Your task to perform on an android device: remove spam from my inbox in the gmail app Image 0: 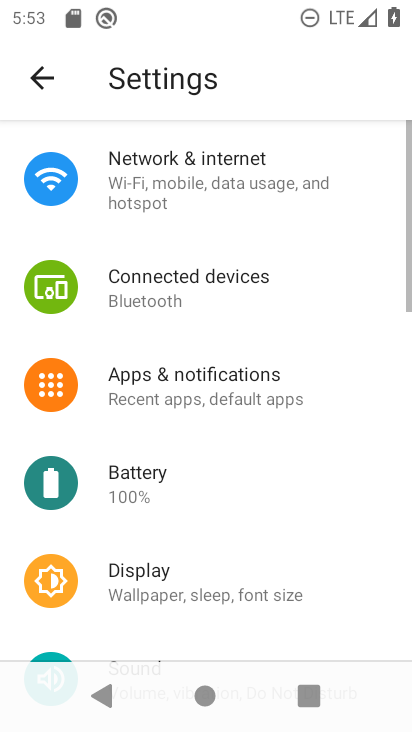
Step 0: press home button
Your task to perform on an android device: remove spam from my inbox in the gmail app Image 1: 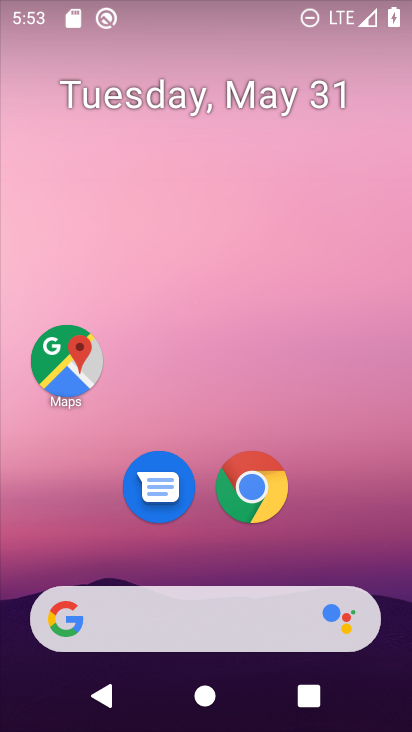
Step 1: drag from (349, 503) to (207, 30)
Your task to perform on an android device: remove spam from my inbox in the gmail app Image 2: 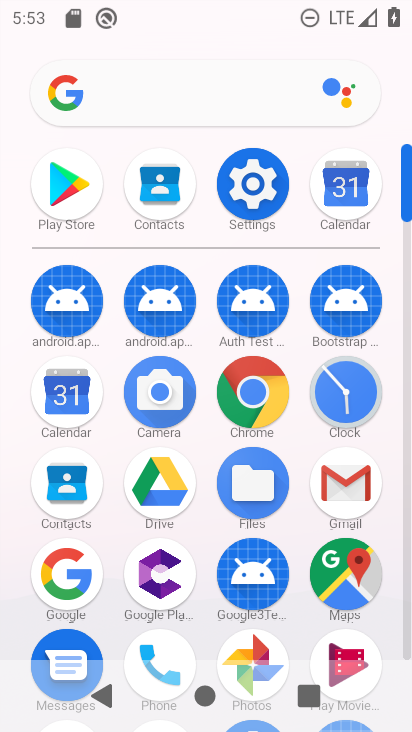
Step 2: click (350, 480)
Your task to perform on an android device: remove spam from my inbox in the gmail app Image 3: 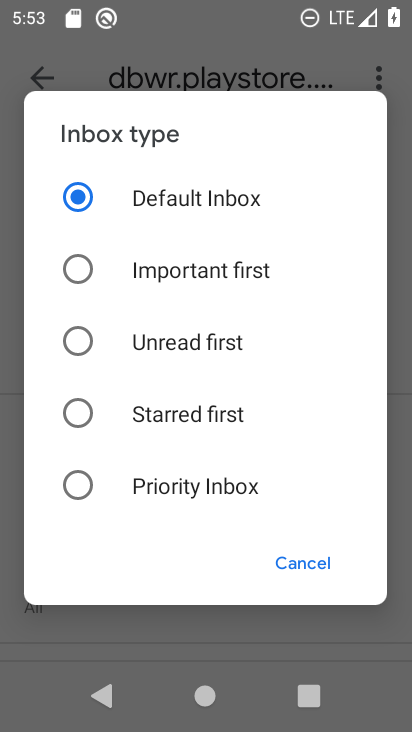
Step 3: click (285, 574)
Your task to perform on an android device: remove spam from my inbox in the gmail app Image 4: 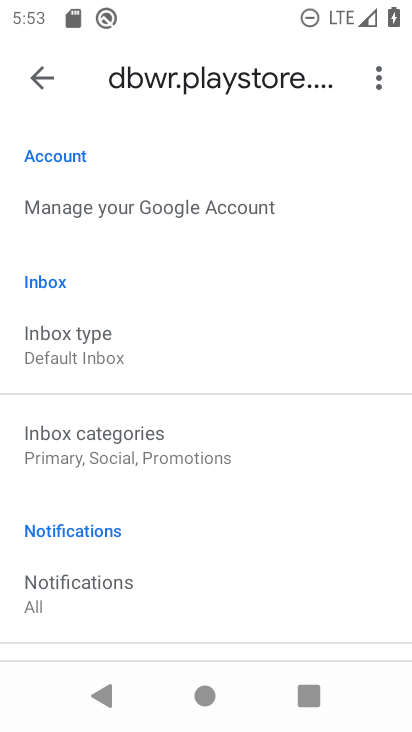
Step 4: click (36, 76)
Your task to perform on an android device: remove spam from my inbox in the gmail app Image 5: 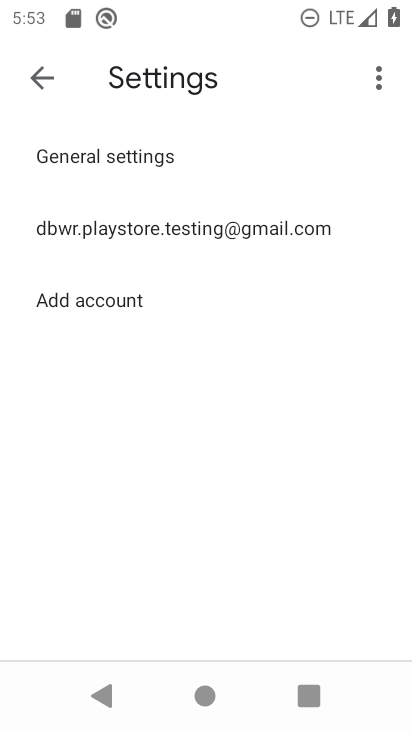
Step 5: click (36, 76)
Your task to perform on an android device: remove spam from my inbox in the gmail app Image 6: 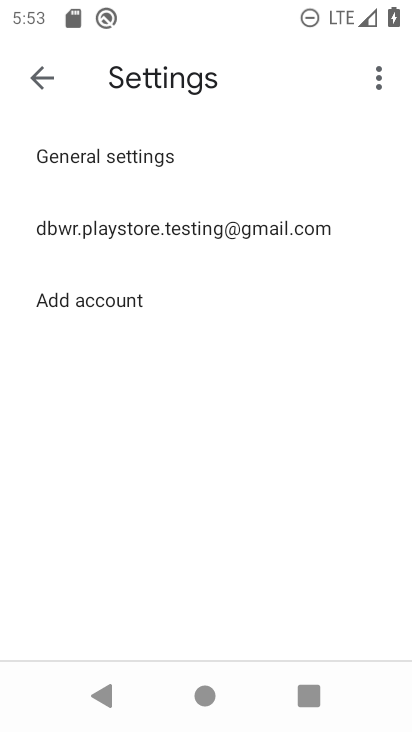
Step 6: click (36, 76)
Your task to perform on an android device: remove spam from my inbox in the gmail app Image 7: 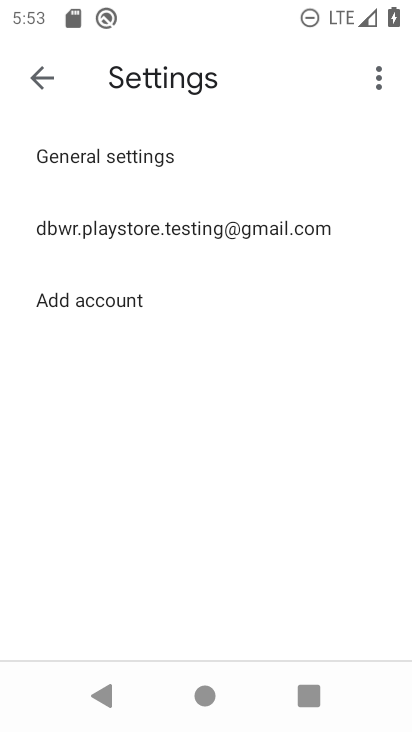
Step 7: click (41, 72)
Your task to perform on an android device: remove spam from my inbox in the gmail app Image 8: 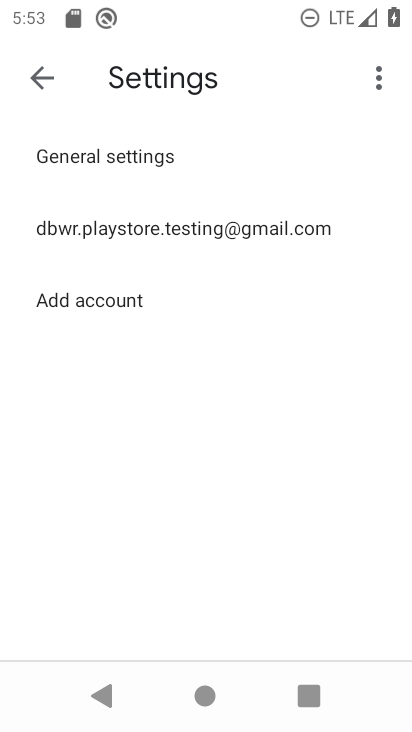
Step 8: click (41, 72)
Your task to perform on an android device: remove spam from my inbox in the gmail app Image 9: 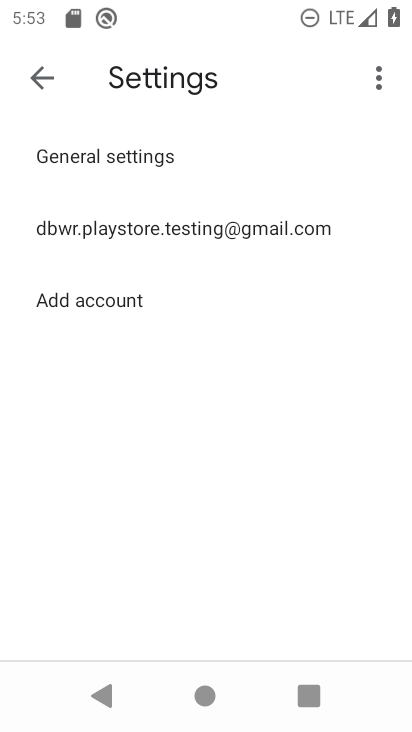
Step 9: click (41, 72)
Your task to perform on an android device: remove spam from my inbox in the gmail app Image 10: 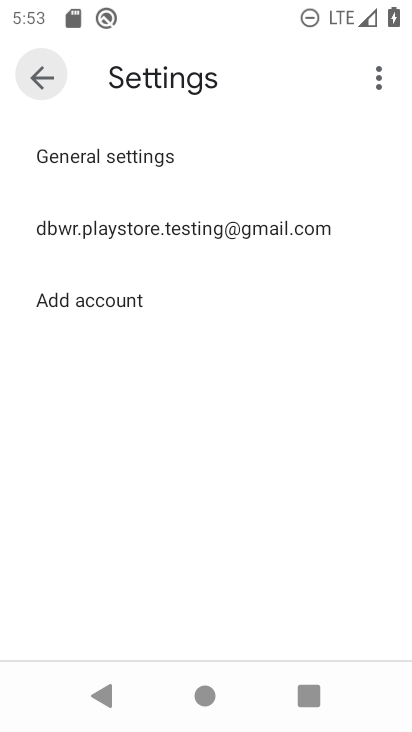
Step 10: click (41, 72)
Your task to perform on an android device: remove spam from my inbox in the gmail app Image 11: 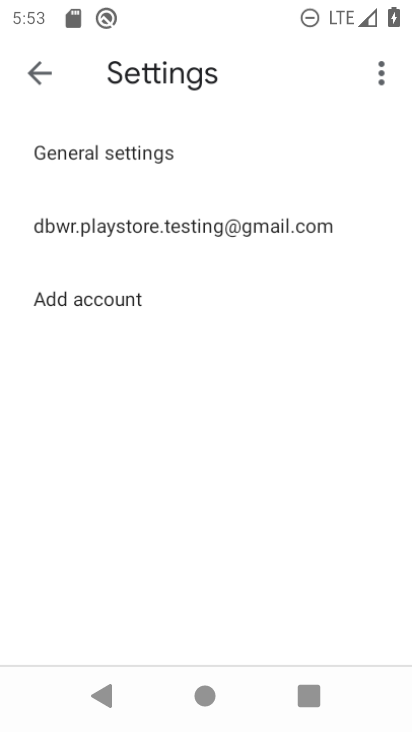
Step 11: click (41, 72)
Your task to perform on an android device: remove spam from my inbox in the gmail app Image 12: 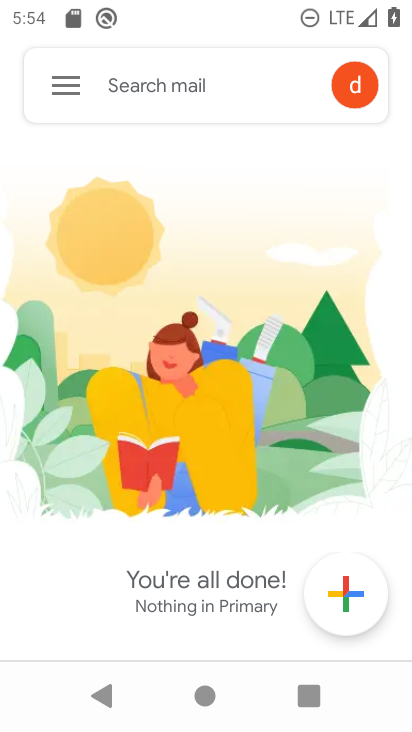
Step 12: click (60, 86)
Your task to perform on an android device: remove spam from my inbox in the gmail app Image 13: 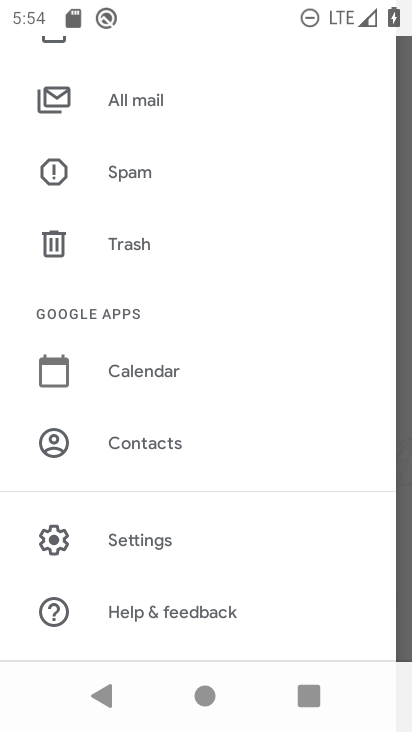
Step 13: click (126, 164)
Your task to perform on an android device: remove spam from my inbox in the gmail app Image 14: 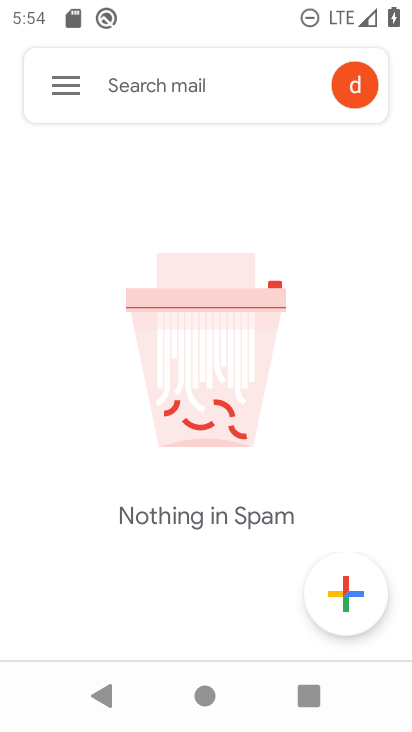
Step 14: task complete